Your task to perform on an android device: turn on location history Image 0: 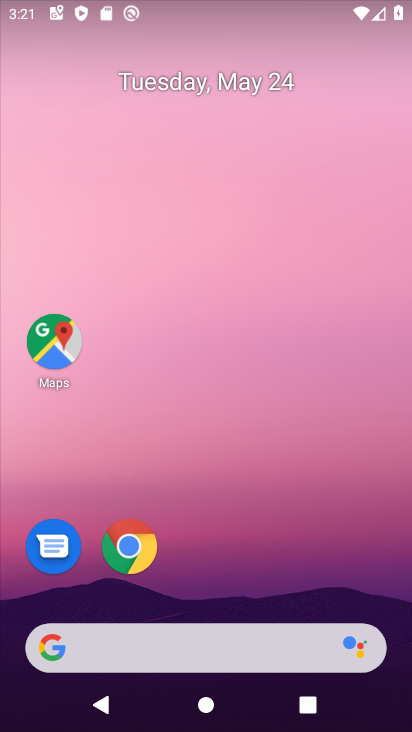
Step 0: drag from (276, 553) to (226, 39)
Your task to perform on an android device: turn on location history Image 1: 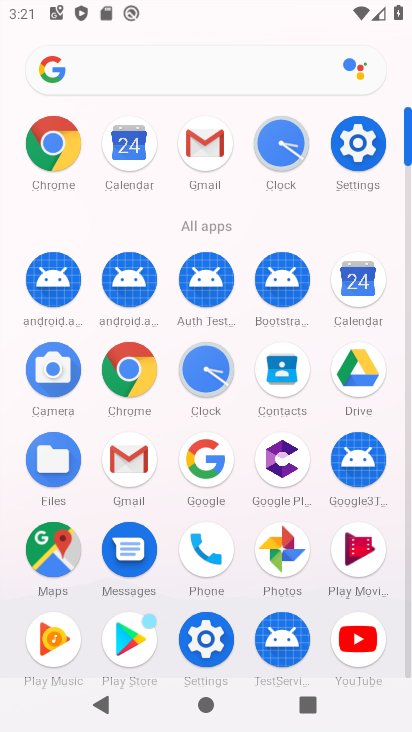
Step 1: click (351, 149)
Your task to perform on an android device: turn on location history Image 2: 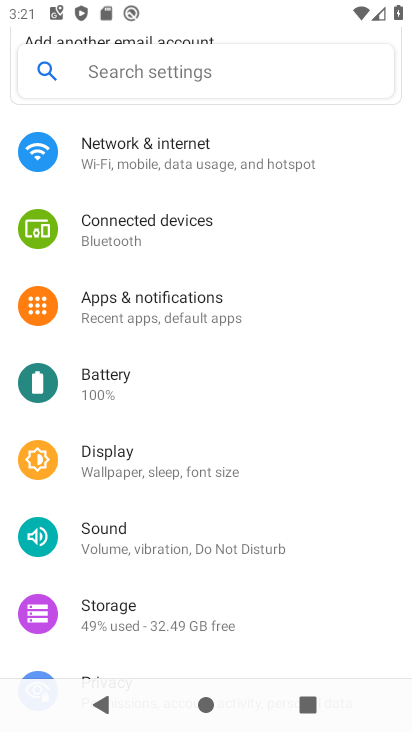
Step 2: drag from (230, 605) to (261, 143)
Your task to perform on an android device: turn on location history Image 3: 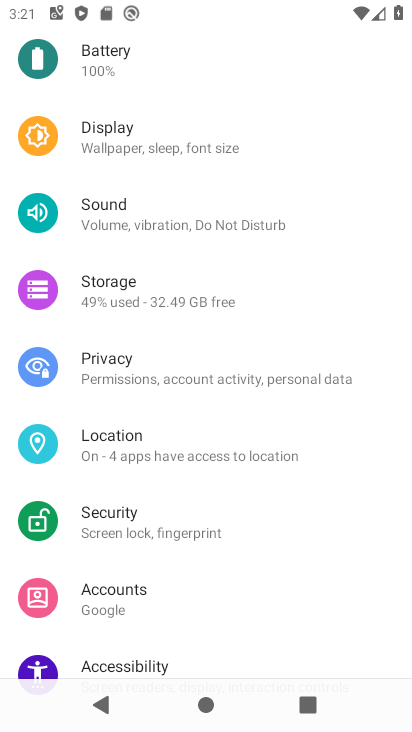
Step 3: click (234, 430)
Your task to perform on an android device: turn on location history Image 4: 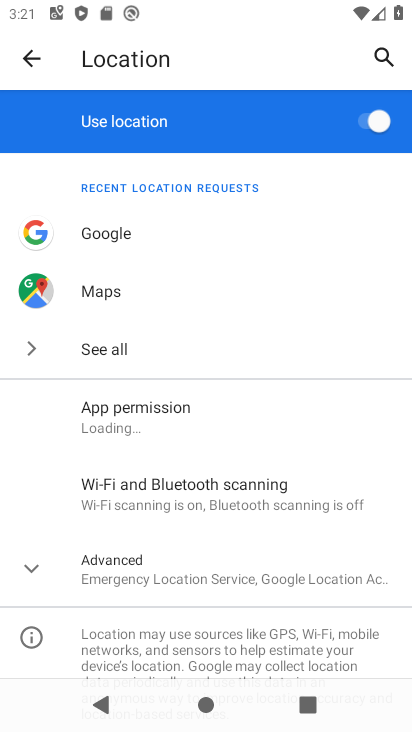
Step 4: click (194, 570)
Your task to perform on an android device: turn on location history Image 5: 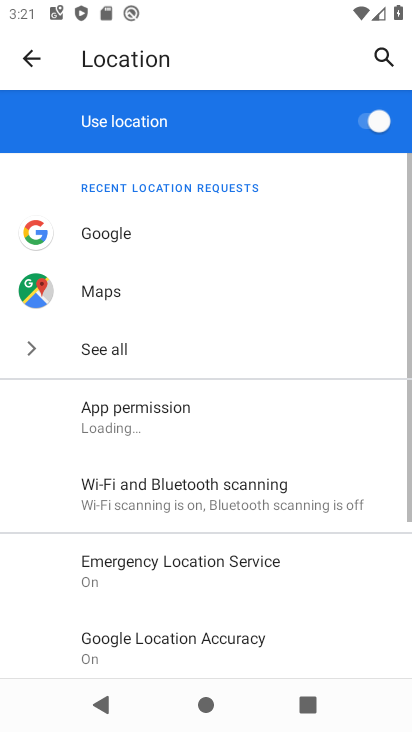
Step 5: drag from (228, 620) to (282, 264)
Your task to perform on an android device: turn on location history Image 6: 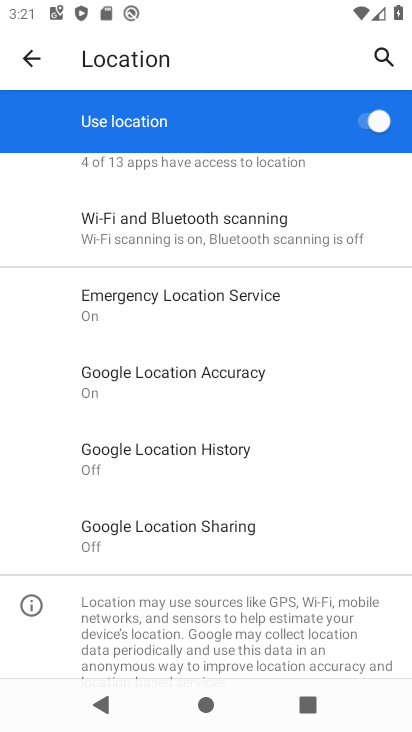
Step 6: click (231, 443)
Your task to perform on an android device: turn on location history Image 7: 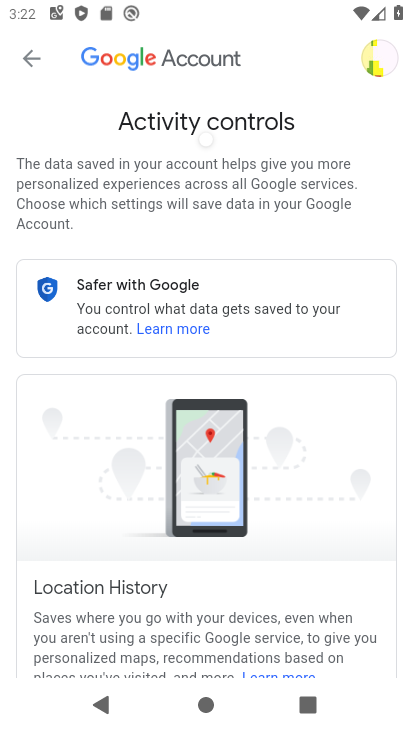
Step 7: task complete